Your task to perform on an android device: turn off wifi Image 0: 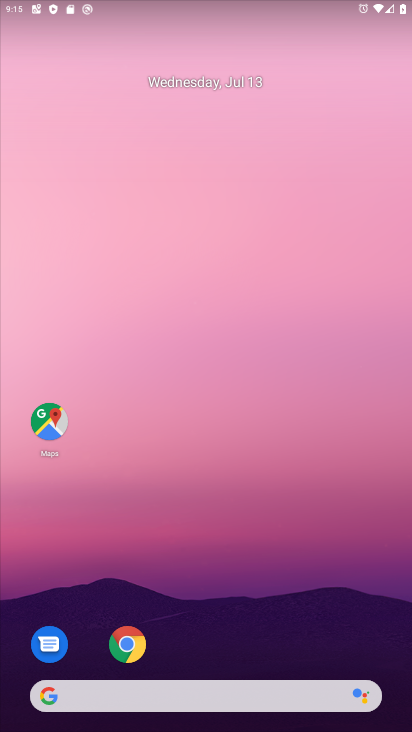
Step 0: drag from (235, 722) to (232, 97)
Your task to perform on an android device: turn off wifi Image 1: 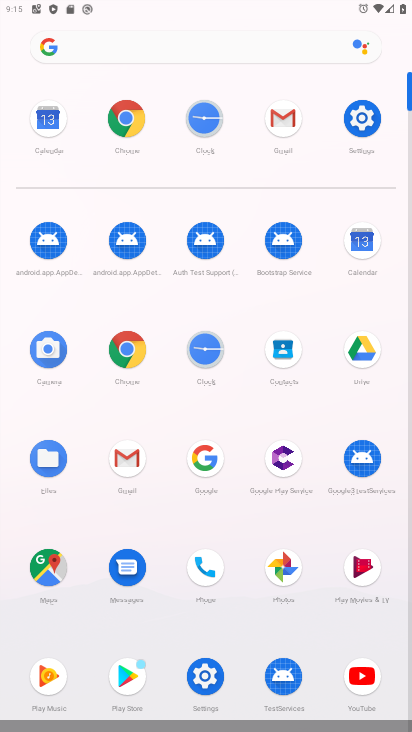
Step 1: click (365, 118)
Your task to perform on an android device: turn off wifi Image 2: 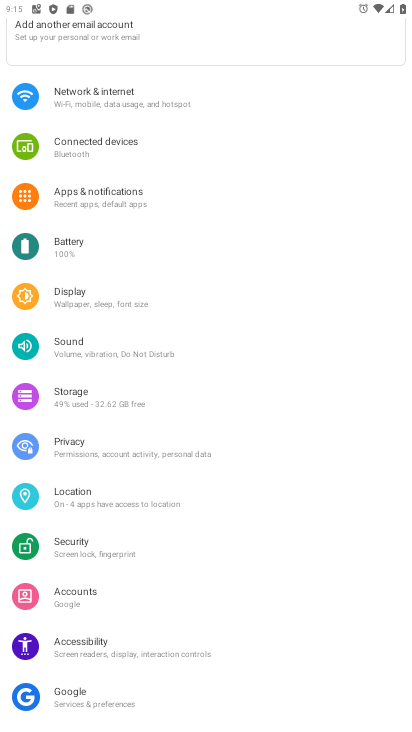
Step 2: click (123, 95)
Your task to perform on an android device: turn off wifi Image 3: 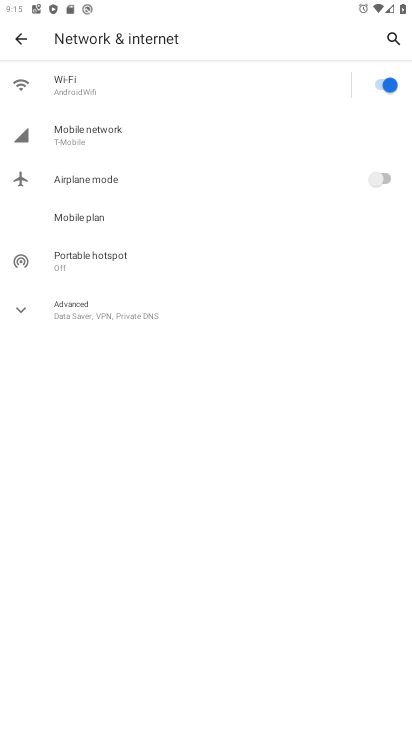
Step 3: click (381, 82)
Your task to perform on an android device: turn off wifi Image 4: 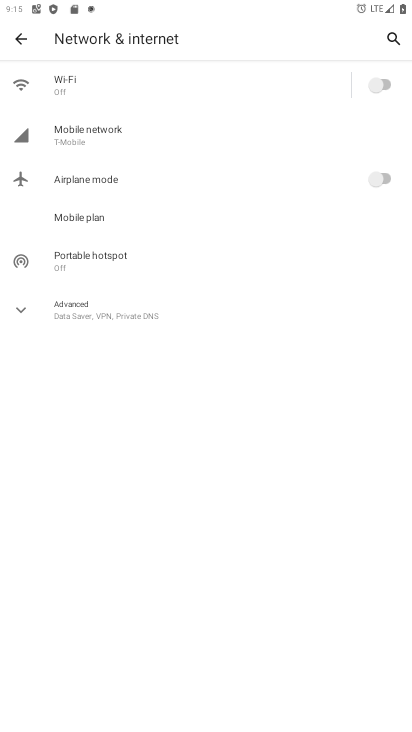
Step 4: task complete